Your task to perform on an android device: View the shopping cart on ebay.com. Search for "bose soundsport free" on ebay.com, select the first entry, and add it to the cart. Image 0: 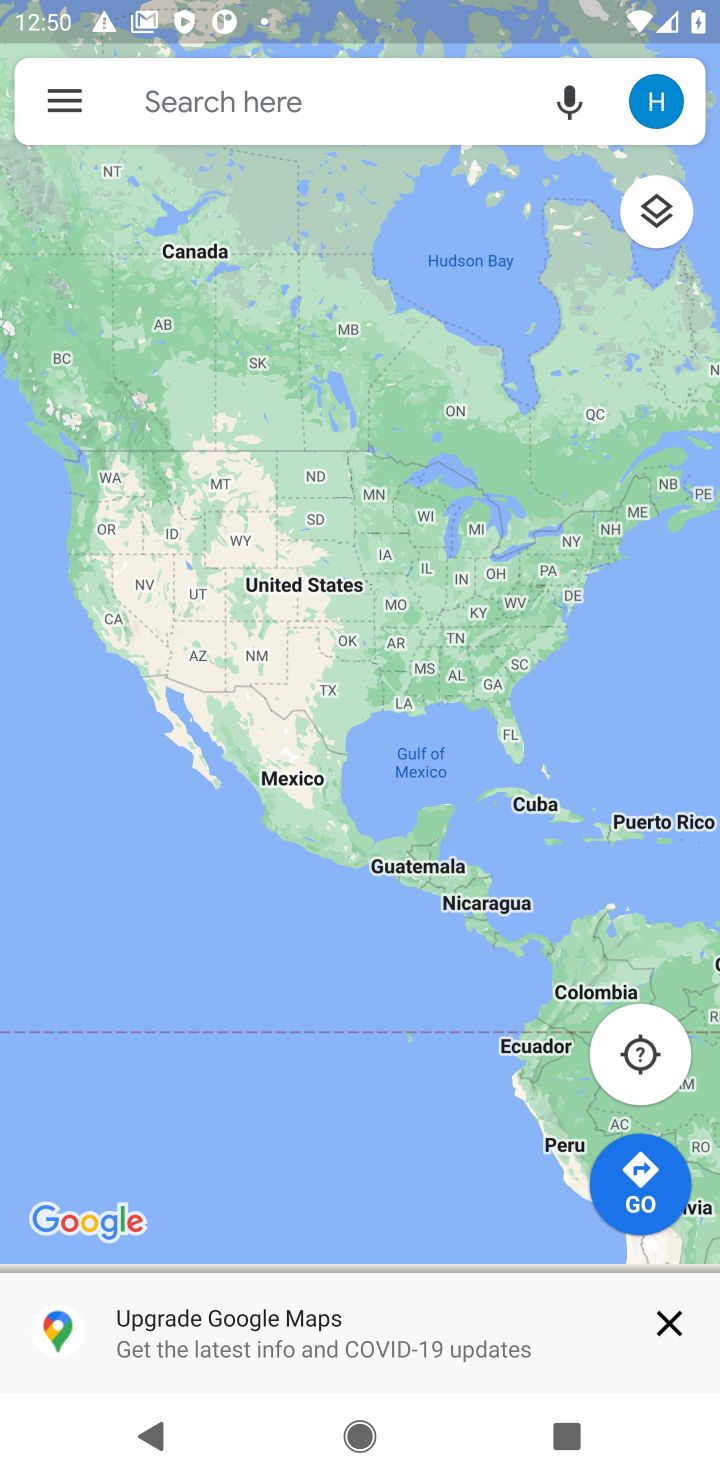
Step 0: press home button
Your task to perform on an android device: View the shopping cart on ebay.com. Search for "bose soundsport free" on ebay.com, select the first entry, and add it to the cart. Image 1: 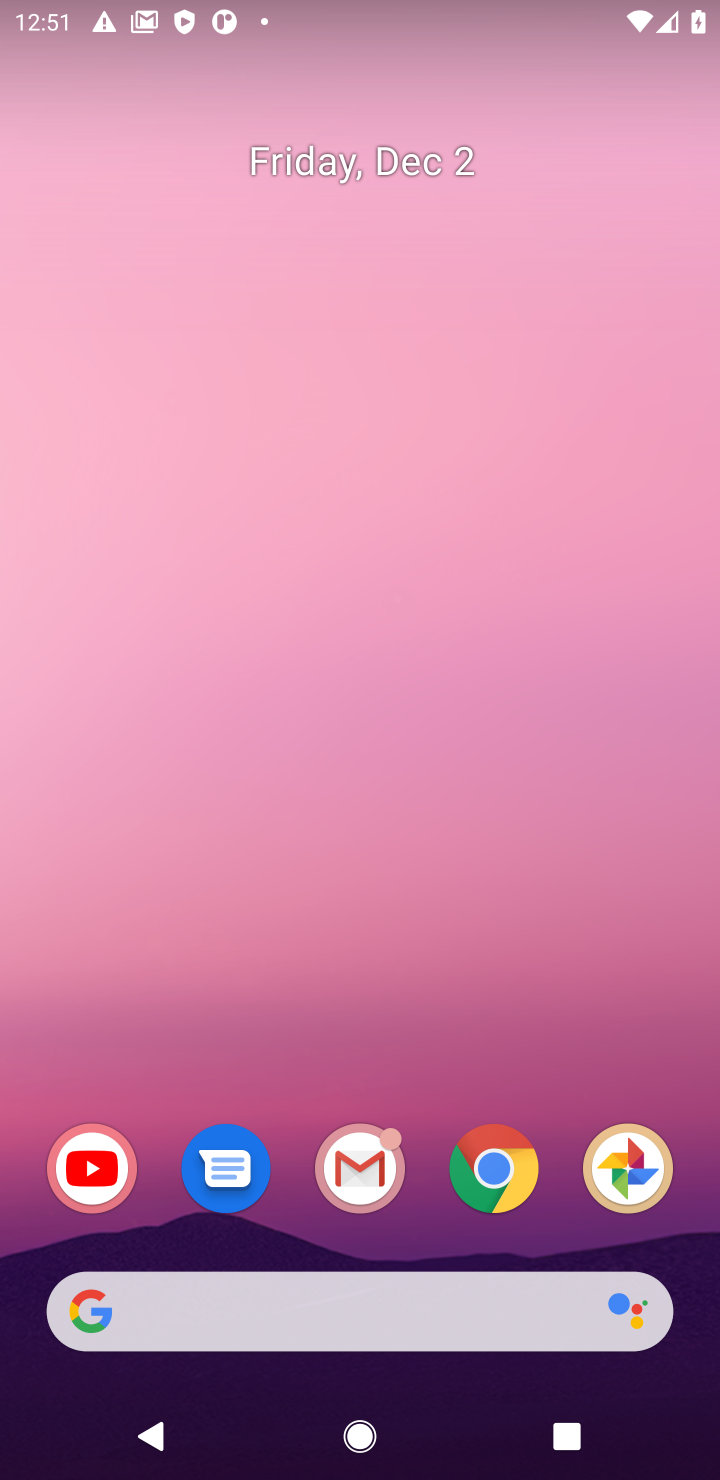
Step 1: click (506, 1173)
Your task to perform on an android device: View the shopping cart on ebay.com. Search for "bose soundsport free" on ebay.com, select the first entry, and add it to the cart. Image 2: 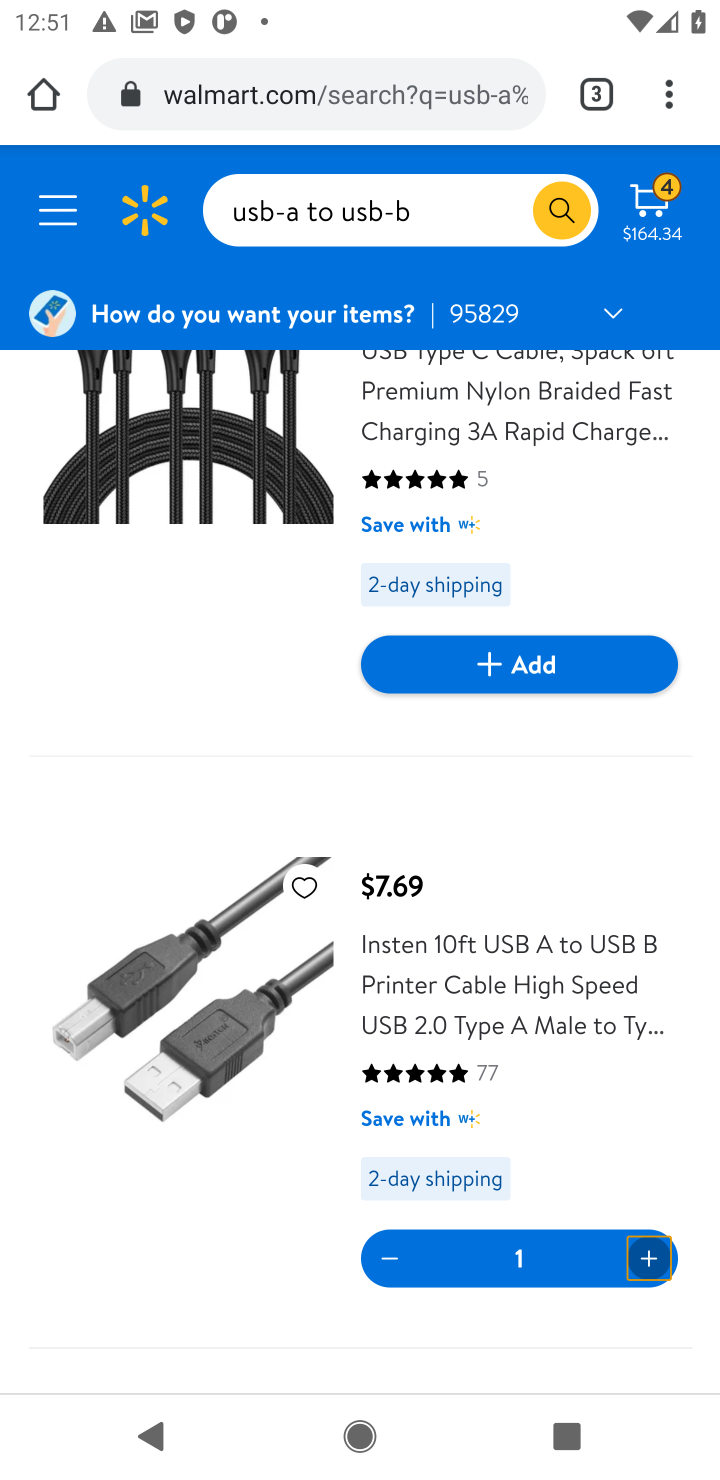
Step 2: click (265, 113)
Your task to perform on an android device: View the shopping cart on ebay.com. Search for "bose soundsport free" on ebay.com, select the first entry, and add it to the cart. Image 3: 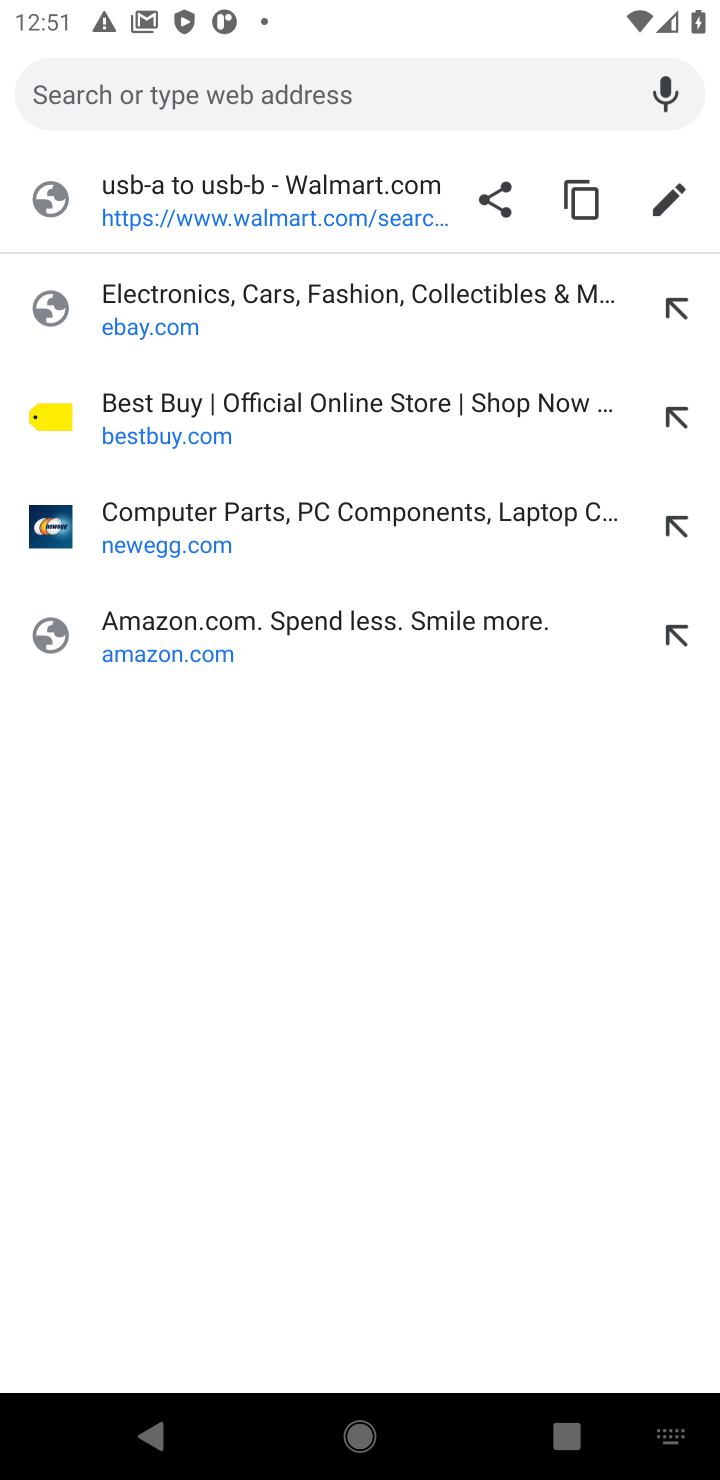
Step 3: click (165, 315)
Your task to perform on an android device: View the shopping cart on ebay.com. Search for "bose soundsport free" on ebay.com, select the first entry, and add it to the cart. Image 4: 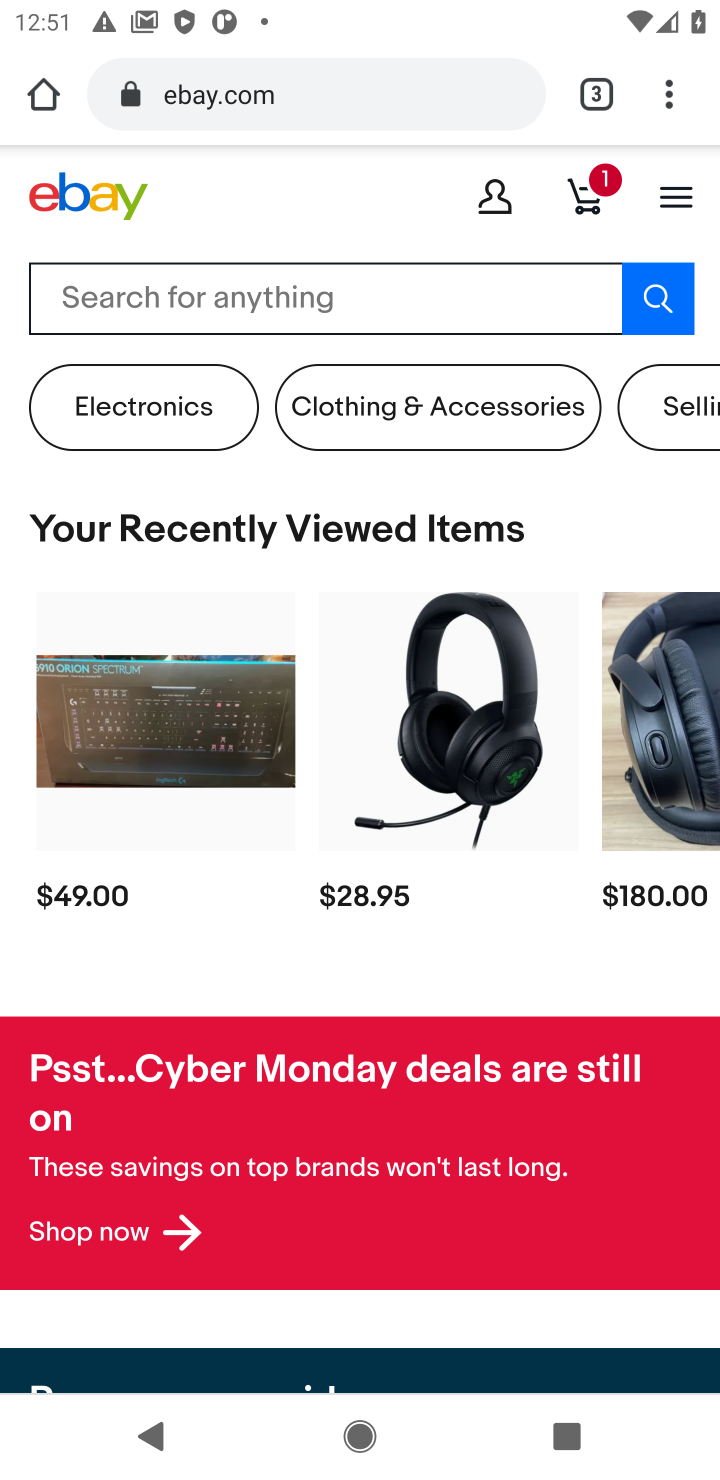
Step 4: click (593, 200)
Your task to perform on an android device: View the shopping cart on ebay.com. Search for "bose soundsport free" on ebay.com, select the first entry, and add it to the cart. Image 5: 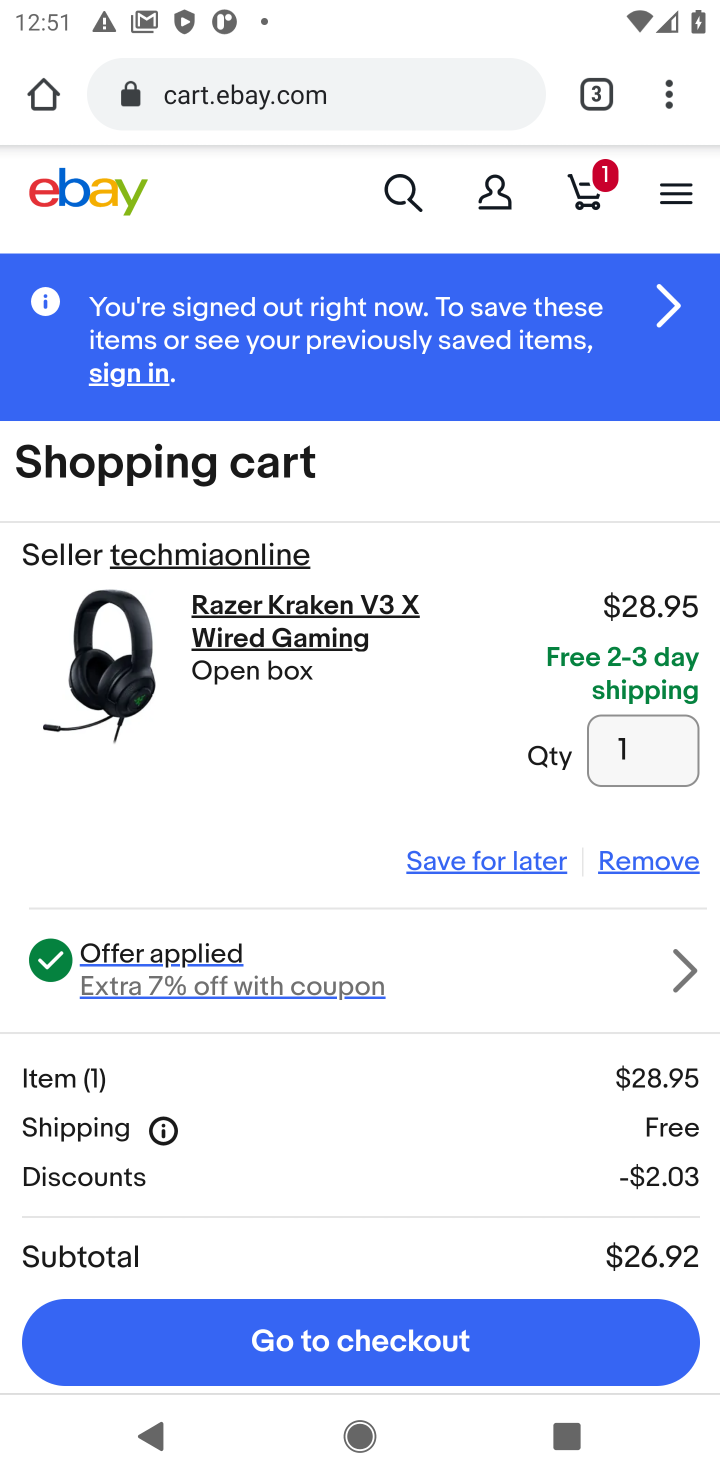
Step 5: click (404, 193)
Your task to perform on an android device: View the shopping cart on ebay.com. Search for "bose soundsport free" on ebay.com, select the first entry, and add it to the cart. Image 6: 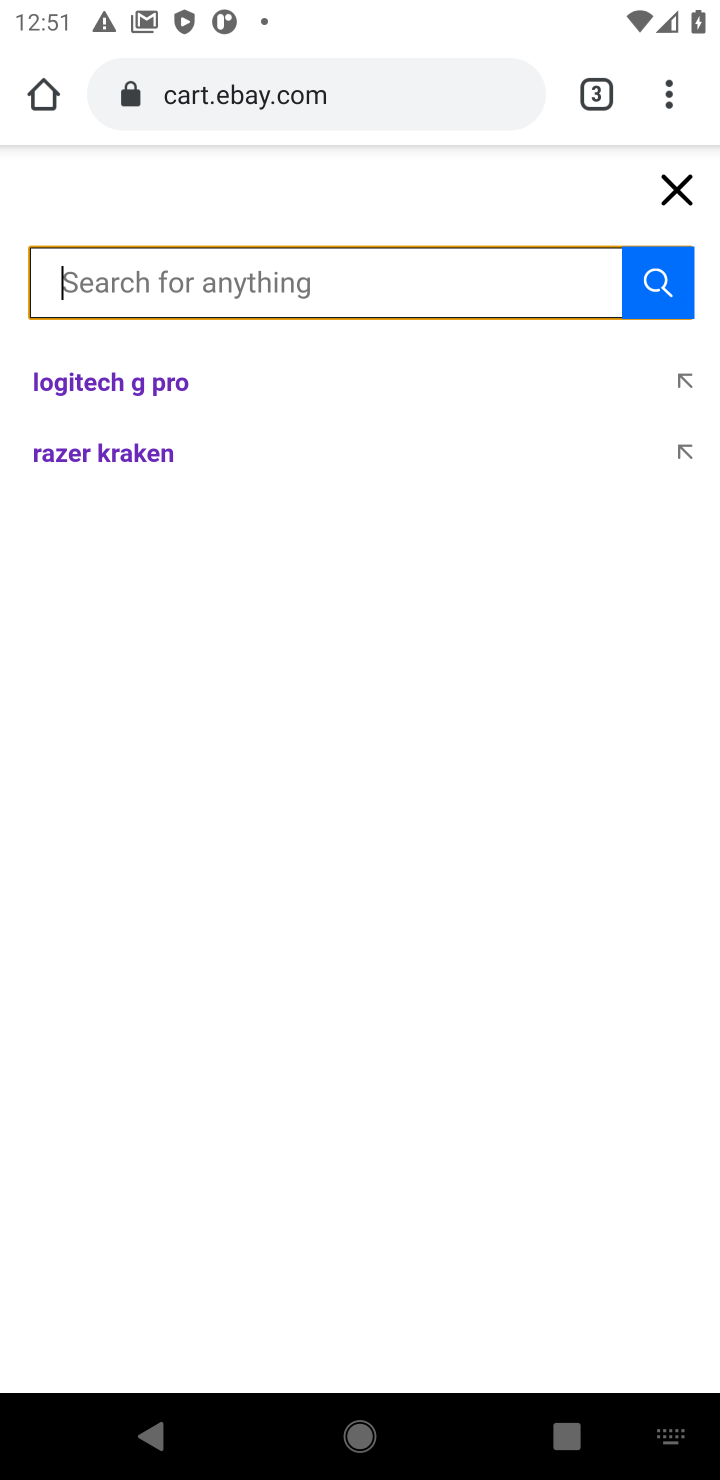
Step 6: type "bose soundsport free"
Your task to perform on an android device: View the shopping cart on ebay.com. Search for "bose soundsport free" on ebay.com, select the first entry, and add it to the cart. Image 7: 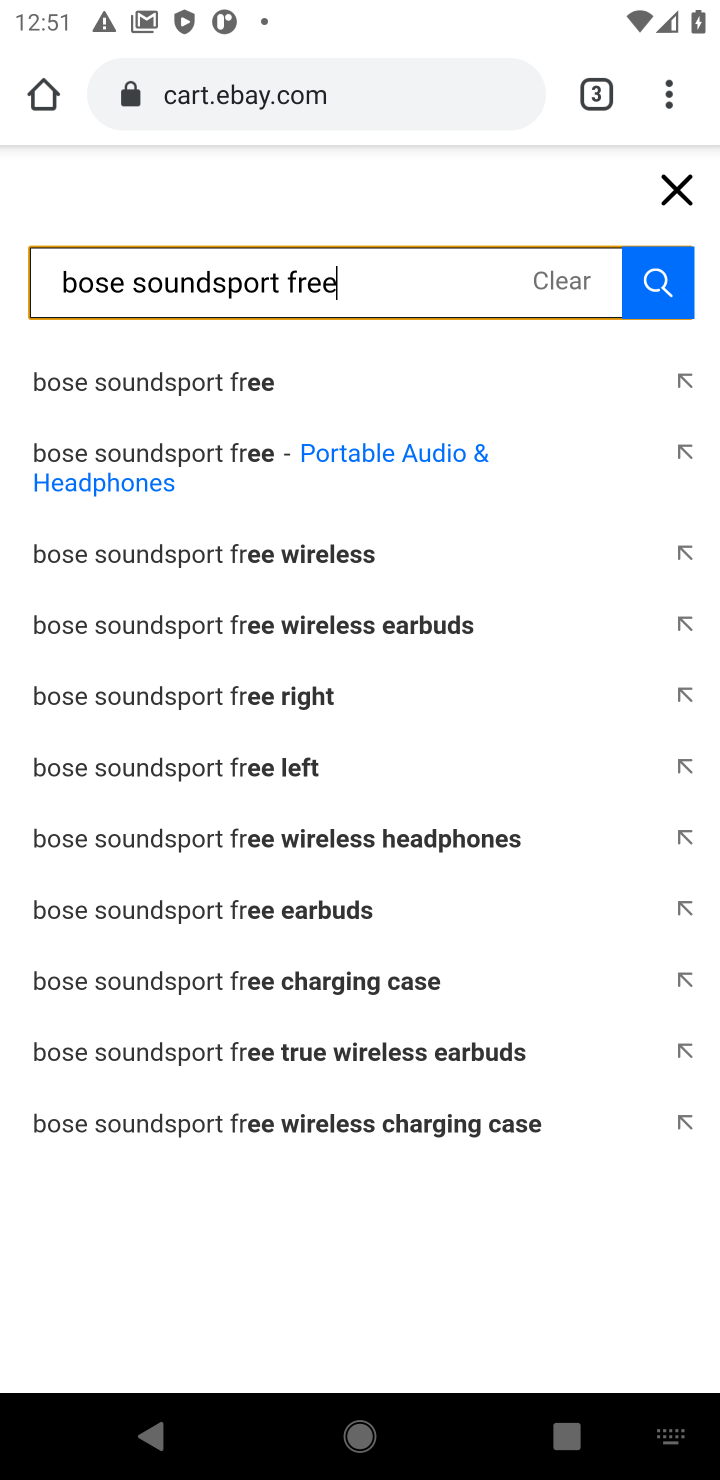
Step 7: click (107, 391)
Your task to perform on an android device: View the shopping cart on ebay.com. Search for "bose soundsport free" on ebay.com, select the first entry, and add it to the cart. Image 8: 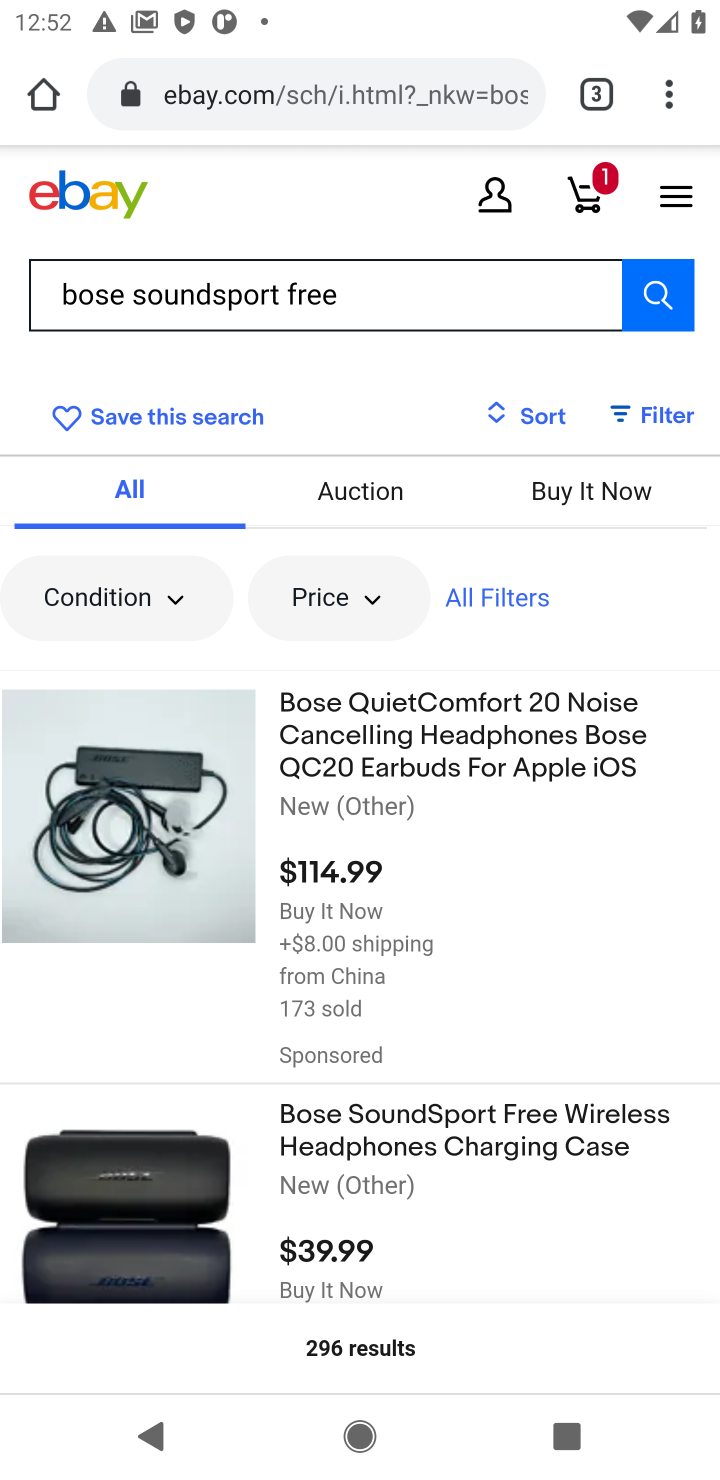
Step 8: task complete